Your task to perform on an android device: move a message to another label in the gmail app Image 0: 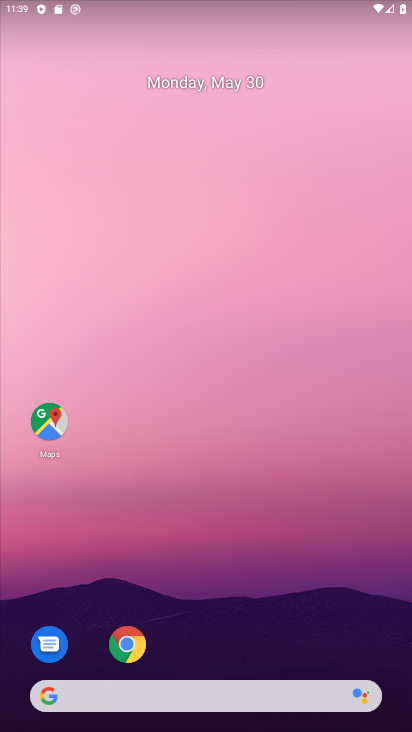
Step 0: drag from (196, 634) to (136, 13)
Your task to perform on an android device: move a message to another label in the gmail app Image 1: 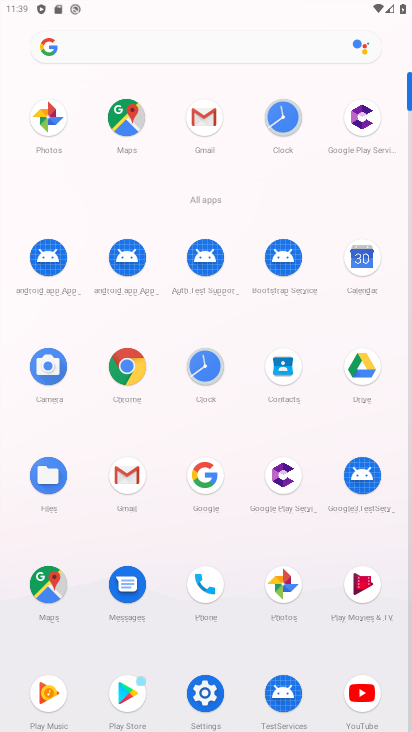
Step 1: click (140, 475)
Your task to perform on an android device: move a message to another label in the gmail app Image 2: 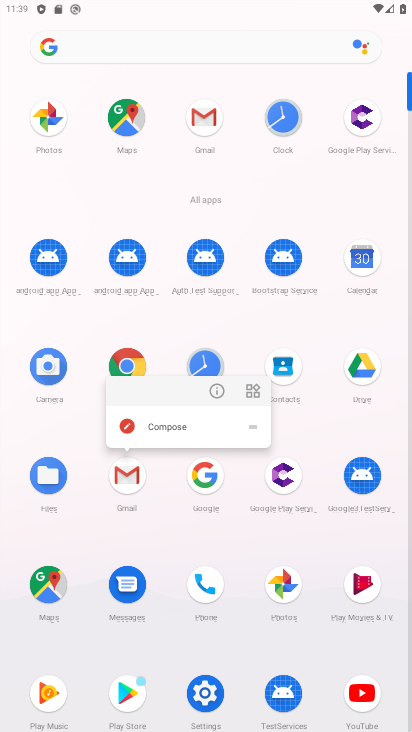
Step 2: click (217, 384)
Your task to perform on an android device: move a message to another label in the gmail app Image 3: 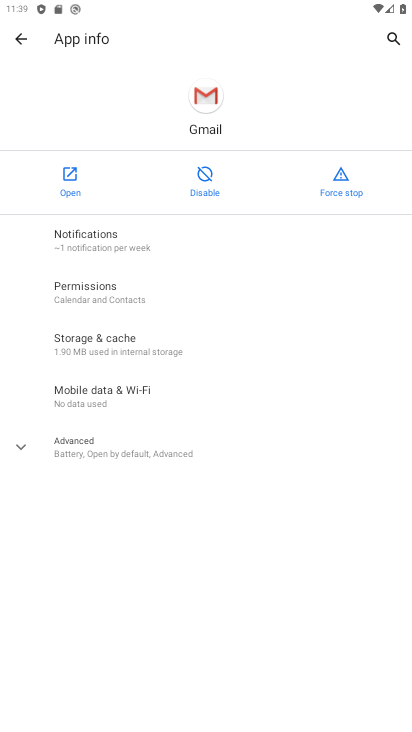
Step 3: click (65, 178)
Your task to perform on an android device: move a message to another label in the gmail app Image 4: 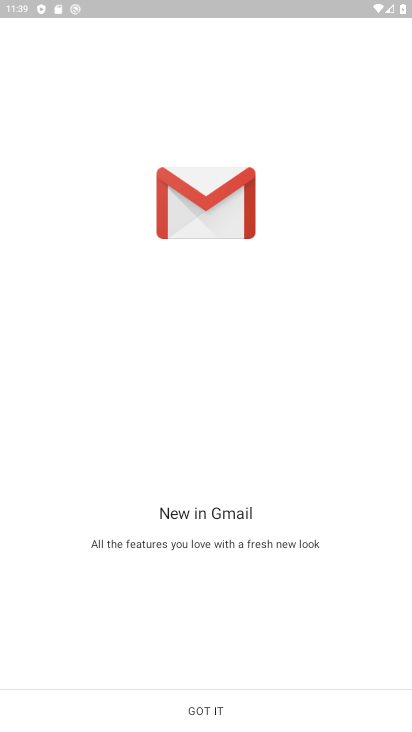
Step 4: click (195, 701)
Your task to perform on an android device: move a message to another label in the gmail app Image 5: 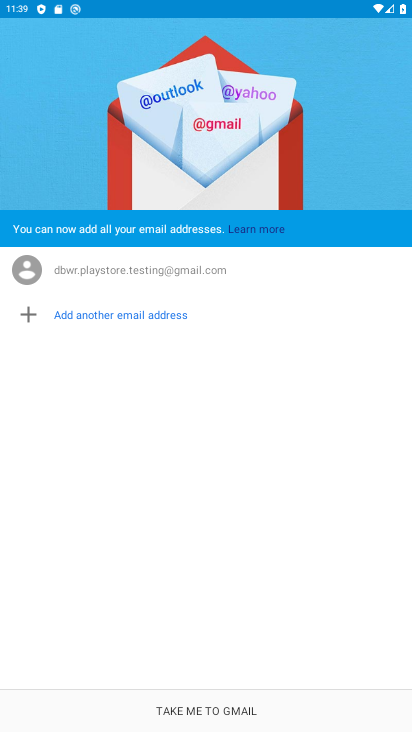
Step 5: click (177, 701)
Your task to perform on an android device: move a message to another label in the gmail app Image 6: 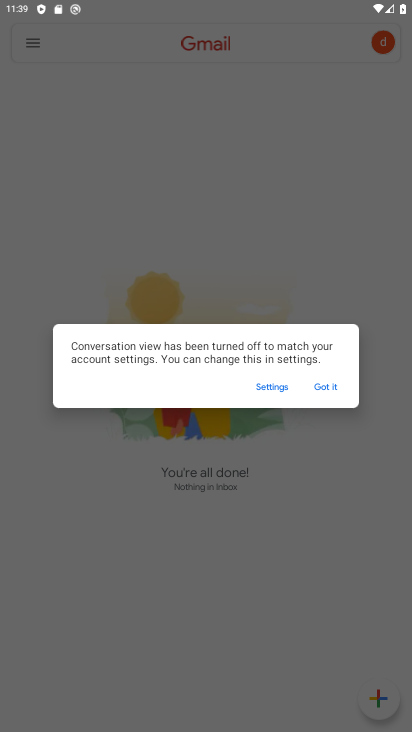
Step 6: click (324, 379)
Your task to perform on an android device: move a message to another label in the gmail app Image 7: 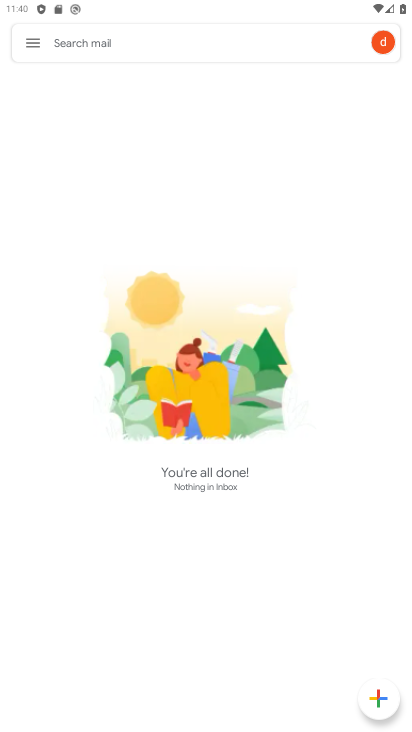
Step 7: task complete